Your task to perform on an android device: search for starred emails in the gmail app Image 0: 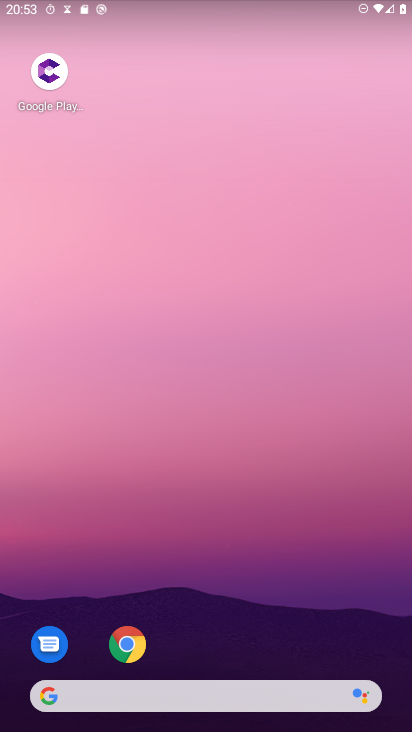
Step 0: drag from (14, 706) to (157, 0)
Your task to perform on an android device: search for starred emails in the gmail app Image 1: 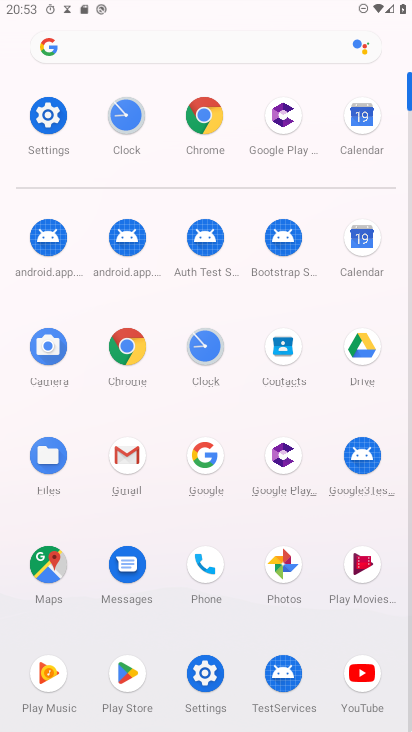
Step 1: click (139, 463)
Your task to perform on an android device: search for starred emails in the gmail app Image 2: 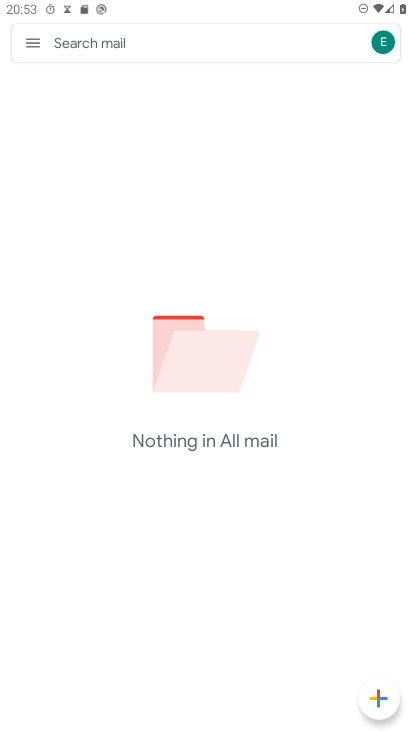
Step 2: click (32, 39)
Your task to perform on an android device: search for starred emails in the gmail app Image 3: 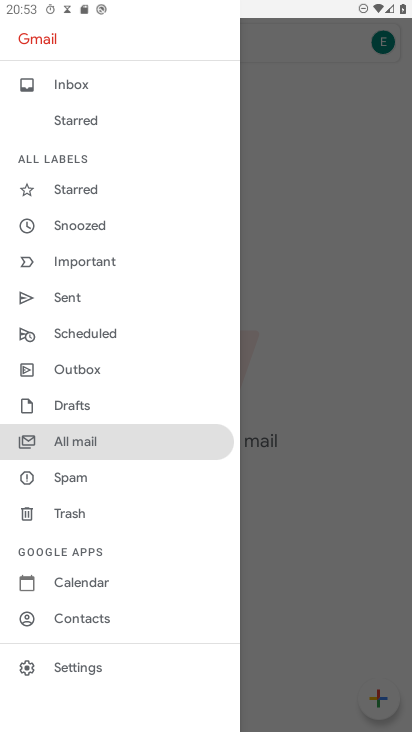
Step 3: click (94, 190)
Your task to perform on an android device: search for starred emails in the gmail app Image 4: 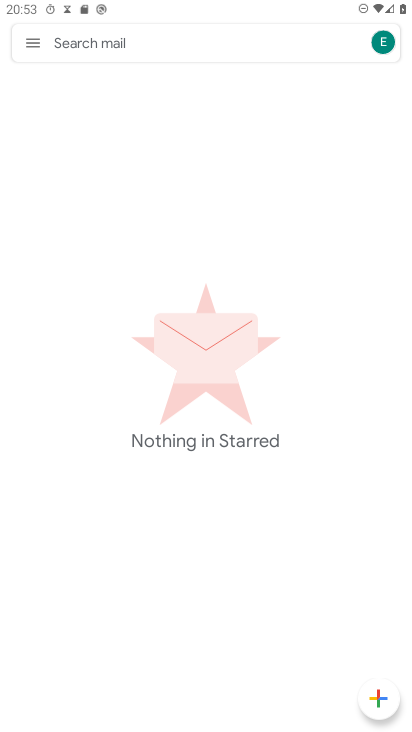
Step 4: task complete